Your task to perform on an android device: Turn off the flashlight Image 0: 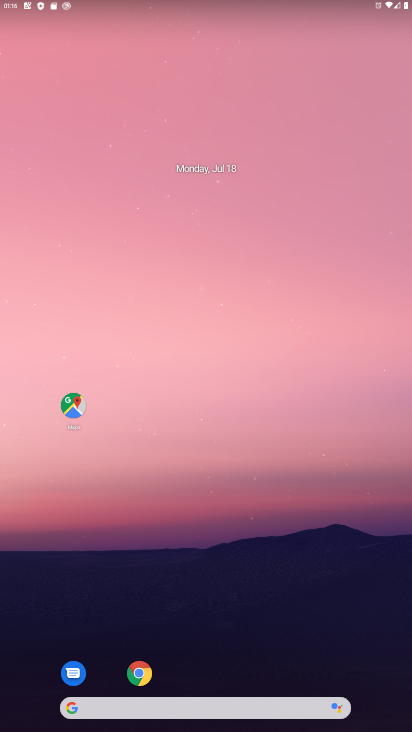
Step 0: drag from (220, 621) to (256, 185)
Your task to perform on an android device: Turn off the flashlight Image 1: 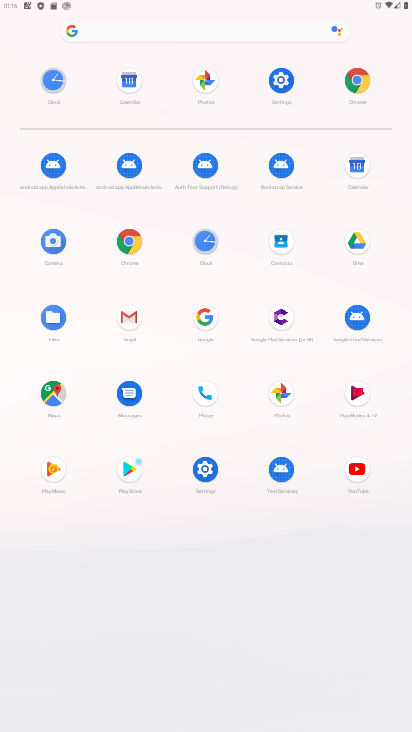
Step 1: click (279, 88)
Your task to perform on an android device: Turn off the flashlight Image 2: 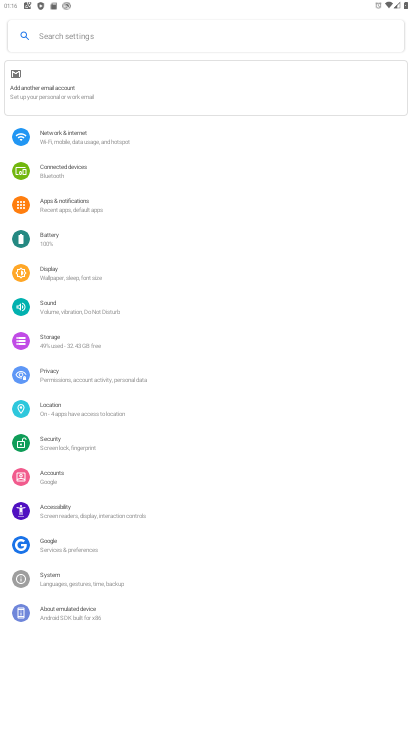
Step 2: task complete